Your task to perform on an android device: Open Google Chrome and click the shortcut for Amazon.com Image 0: 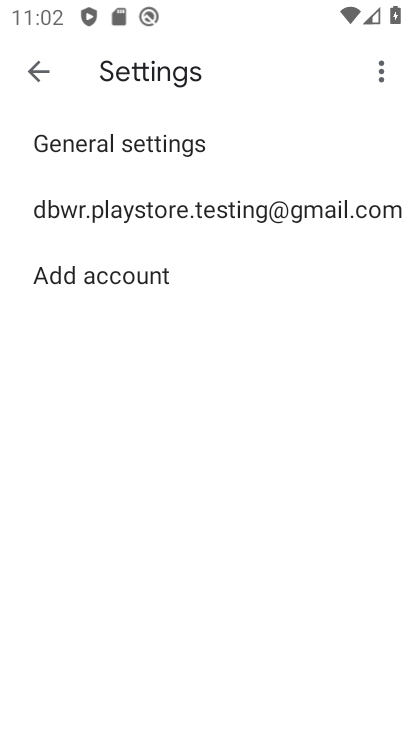
Step 0: task complete